Your task to perform on an android device: When is my next appointment? Image 0: 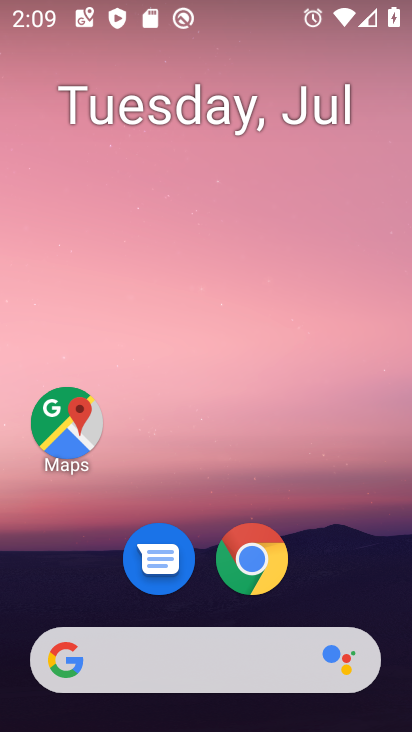
Step 0: press home button
Your task to perform on an android device: When is my next appointment? Image 1: 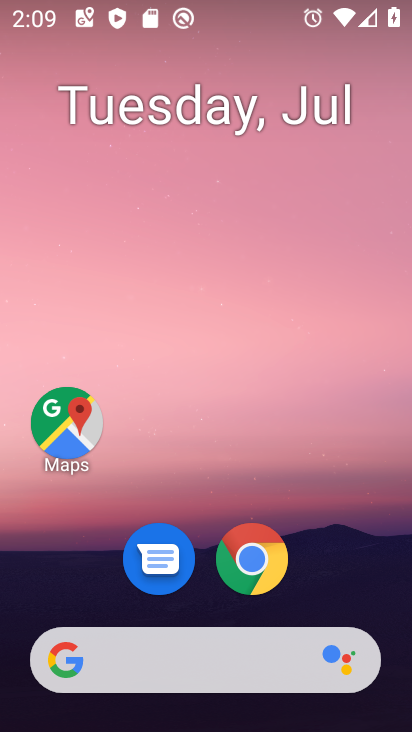
Step 1: drag from (356, 565) to (360, 124)
Your task to perform on an android device: When is my next appointment? Image 2: 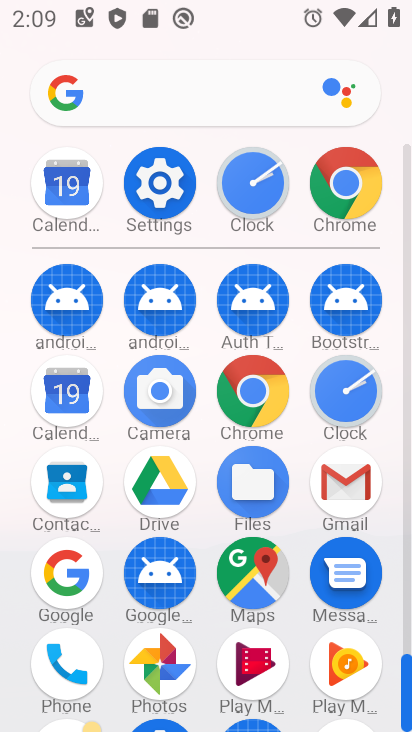
Step 2: click (83, 419)
Your task to perform on an android device: When is my next appointment? Image 3: 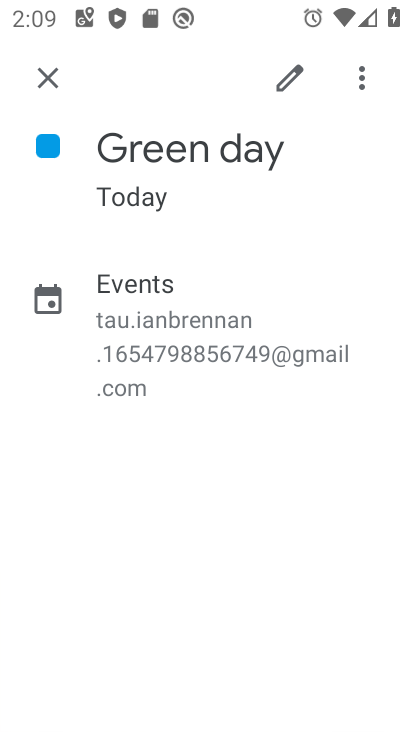
Step 3: press back button
Your task to perform on an android device: When is my next appointment? Image 4: 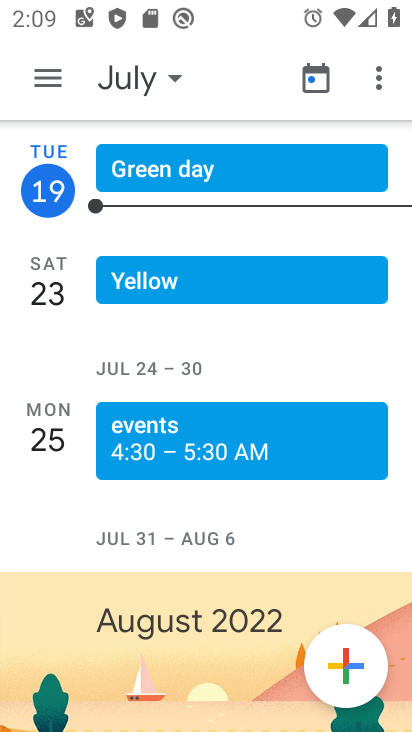
Step 4: click (279, 283)
Your task to perform on an android device: When is my next appointment? Image 5: 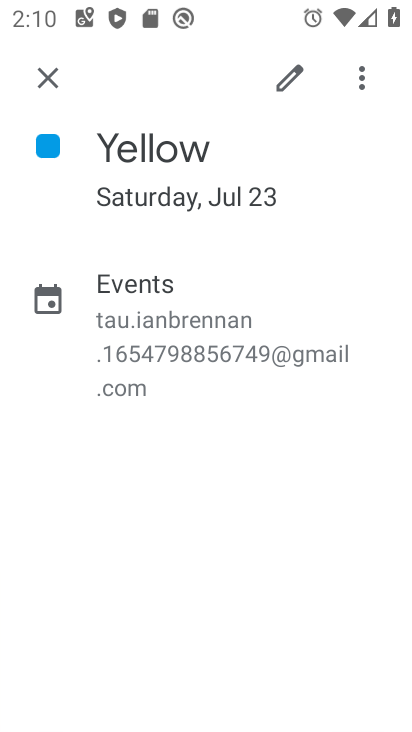
Step 5: task complete